Your task to perform on an android device: turn on sleep mode Image 0: 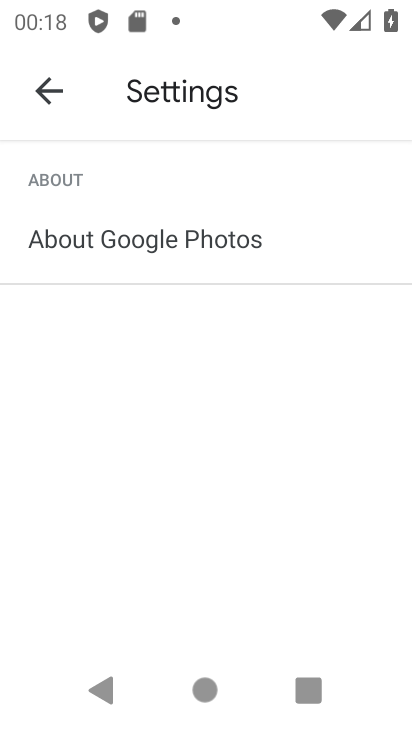
Step 0: press back button
Your task to perform on an android device: turn on sleep mode Image 1: 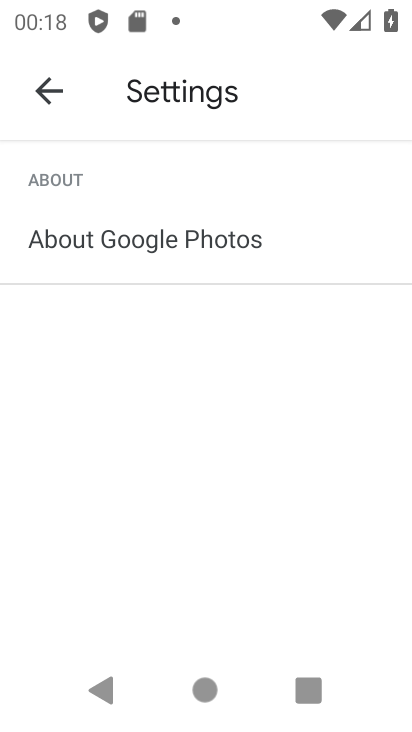
Step 1: click (38, 91)
Your task to perform on an android device: turn on sleep mode Image 2: 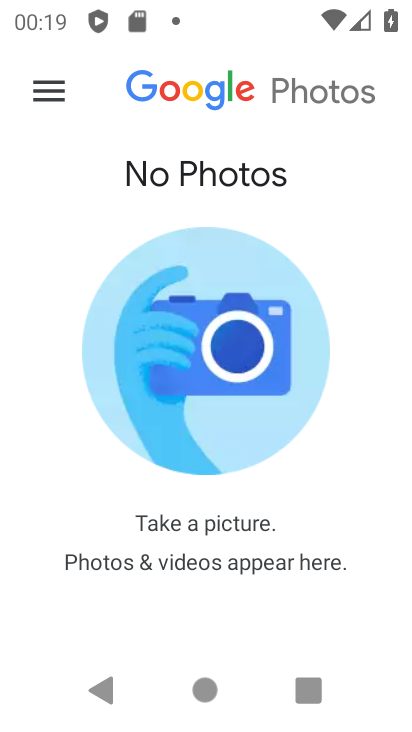
Step 2: press back button
Your task to perform on an android device: turn on sleep mode Image 3: 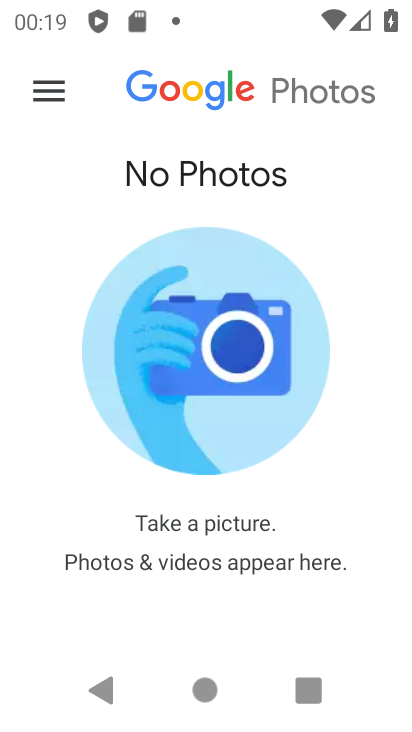
Step 3: press back button
Your task to perform on an android device: turn on sleep mode Image 4: 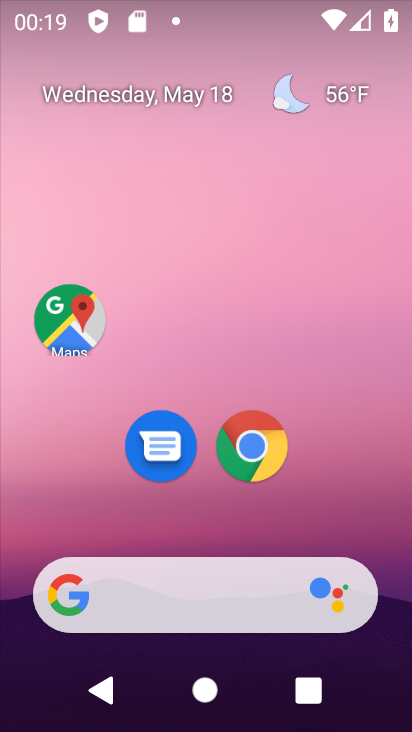
Step 4: drag from (213, 476) to (142, 103)
Your task to perform on an android device: turn on sleep mode Image 5: 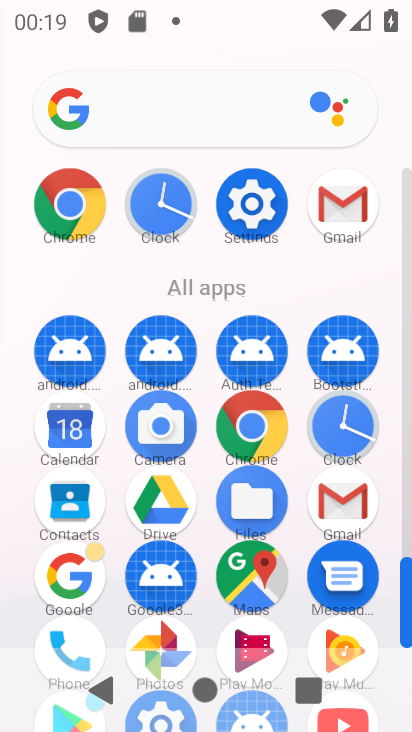
Step 5: click (249, 196)
Your task to perform on an android device: turn on sleep mode Image 6: 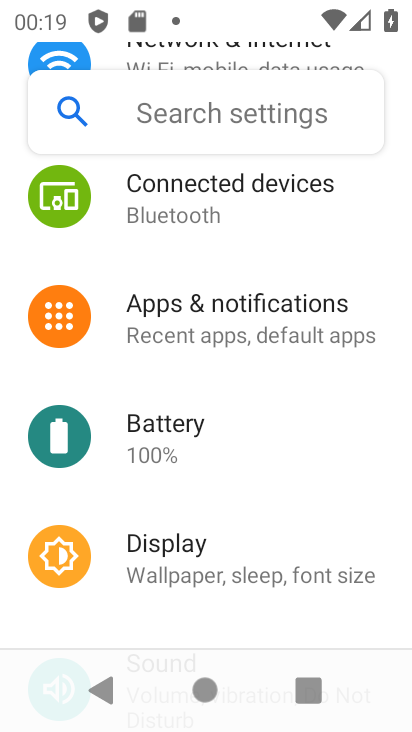
Step 6: click (156, 562)
Your task to perform on an android device: turn on sleep mode Image 7: 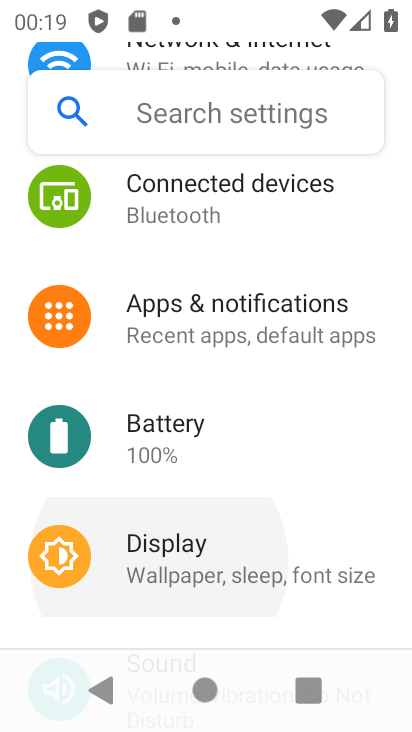
Step 7: click (155, 561)
Your task to perform on an android device: turn on sleep mode Image 8: 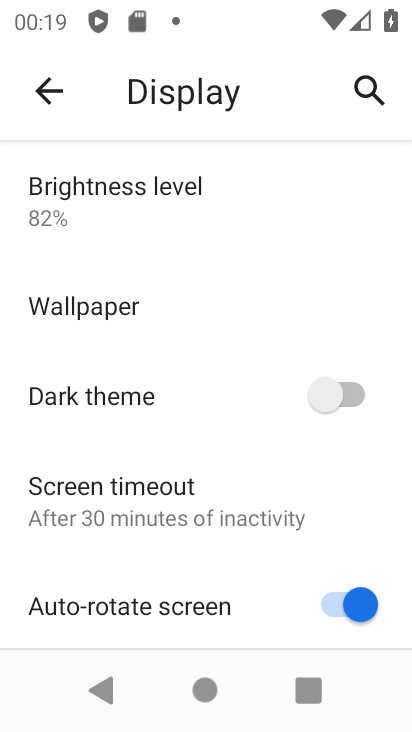
Step 8: task complete